Your task to perform on an android device: turn off data saver in the chrome app Image 0: 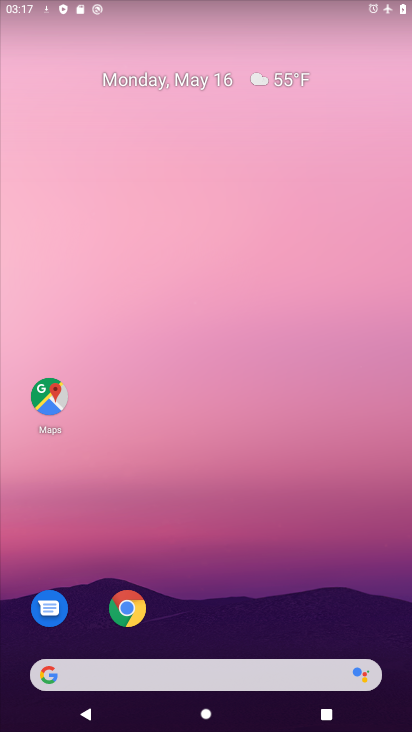
Step 0: drag from (227, 603) to (197, 142)
Your task to perform on an android device: turn off data saver in the chrome app Image 1: 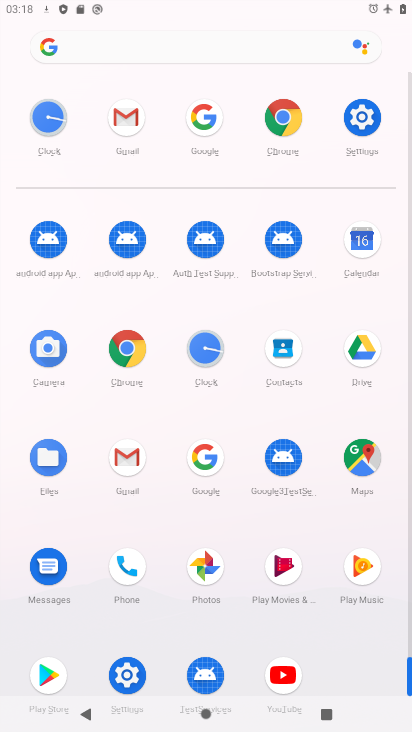
Step 1: click (297, 123)
Your task to perform on an android device: turn off data saver in the chrome app Image 2: 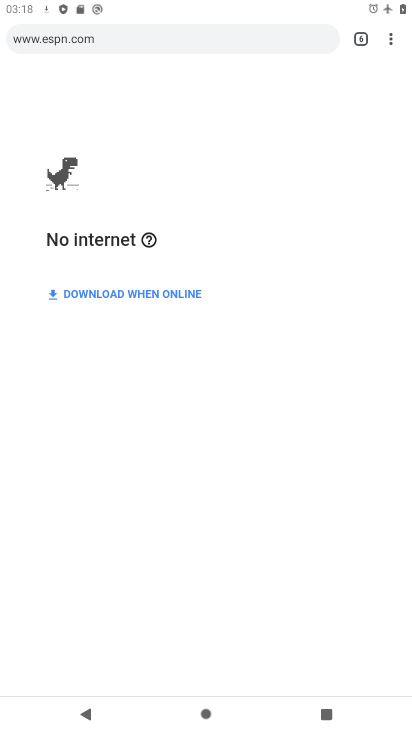
Step 2: click (384, 37)
Your task to perform on an android device: turn off data saver in the chrome app Image 3: 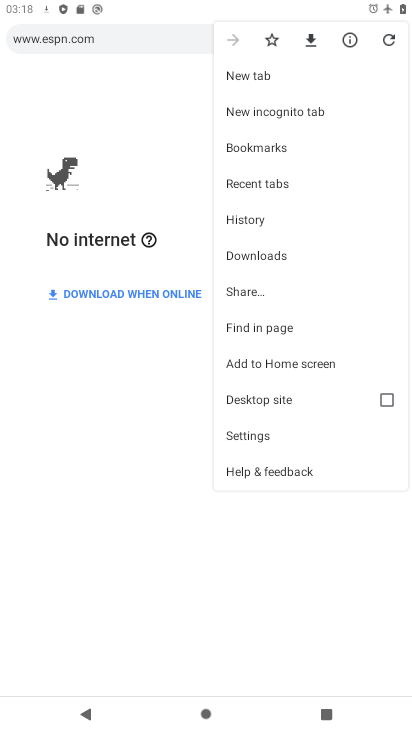
Step 3: click (242, 437)
Your task to perform on an android device: turn off data saver in the chrome app Image 4: 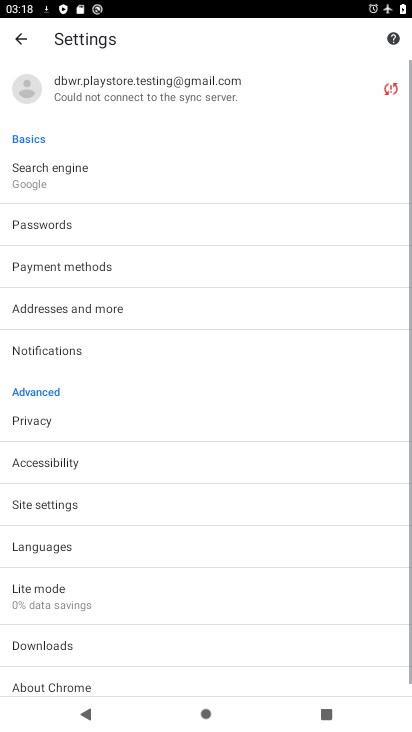
Step 4: drag from (162, 538) to (180, 394)
Your task to perform on an android device: turn off data saver in the chrome app Image 5: 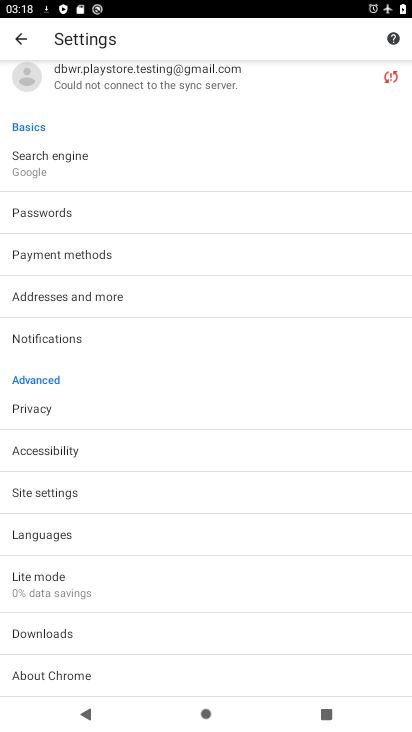
Step 5: click (49, 582)
Your task to perform on an android device: turn off data saver in the chrome app Image 6: 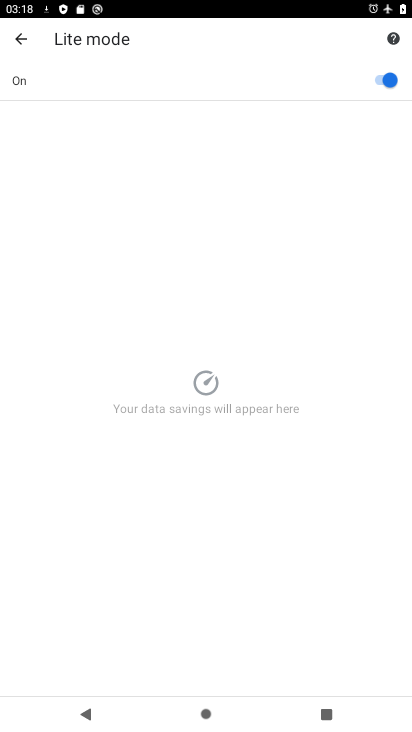
Step 6: click (368, 85)
Your task to perform on an android device: turn off data saver in the chrome app Image 7: 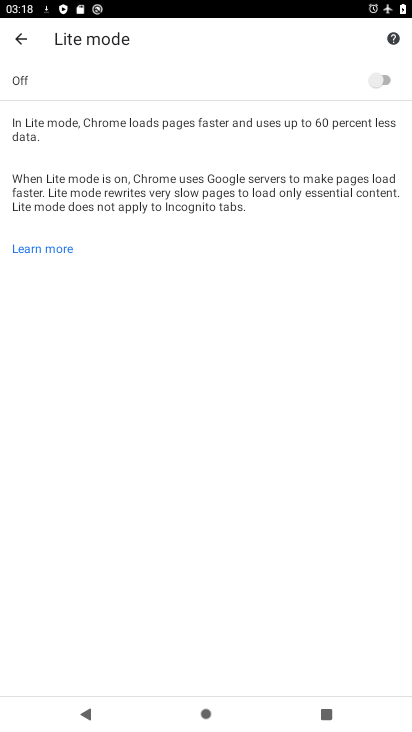
Step 7: task complete